Your task to perform on an android device: Go to Android settings Image 0: 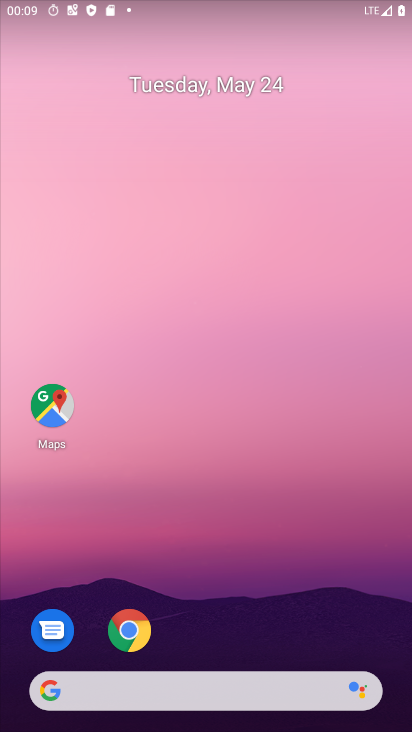
Step 0: drag from (272, 660) to (281, 0)
Your task to perform on an android device: Go to Android settings Image 1: 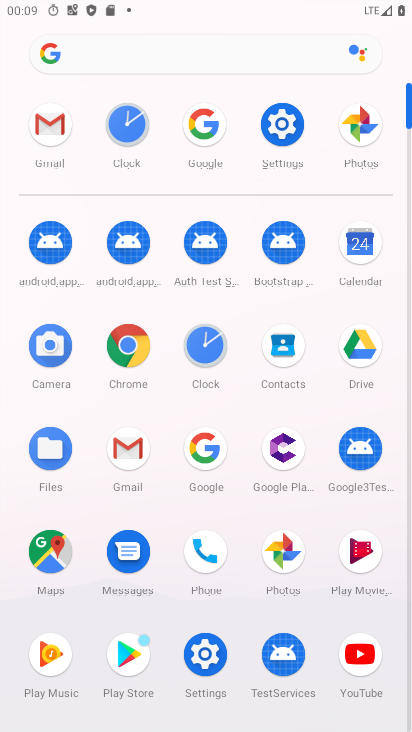
Step 1: click (290, 110)
Your task to perform on an android device: Go to Android settings Image 2: 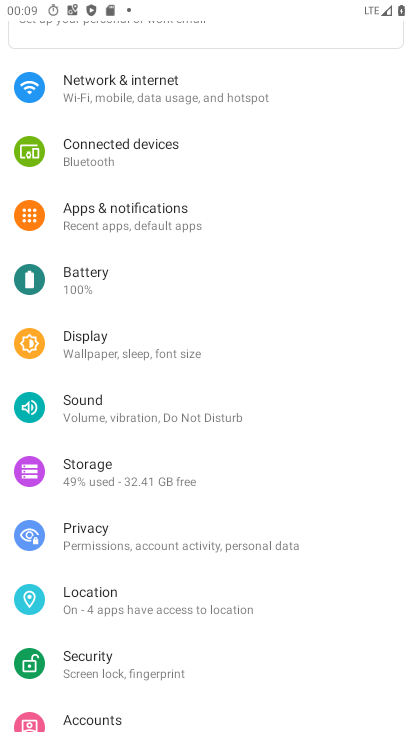
Step 2: task complete